Your task to perform on an android device: clear all cookies in the chrome app Image 0: 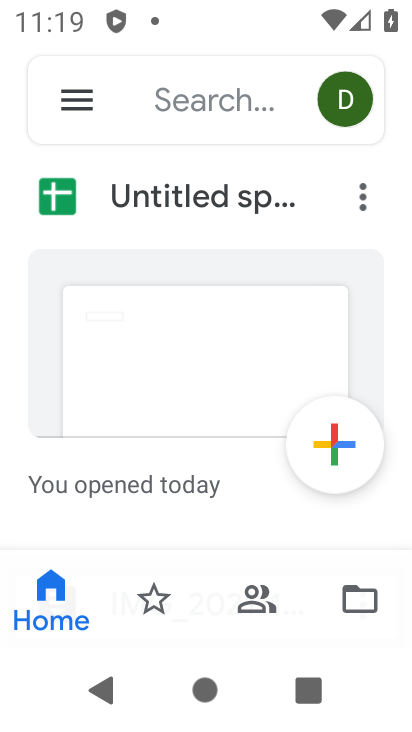
Step 0: press home button
Your task to perform on an android device: clear all cookies in the chrome app Image 1: 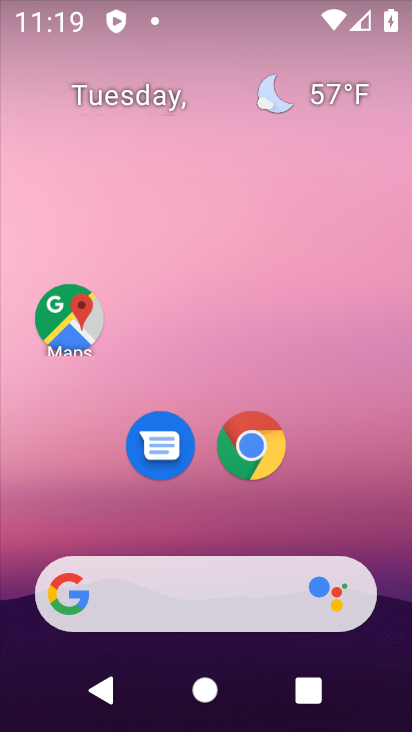
Step 1: drag from (373, 510) to (389, 137)
Your task to perform on an android device: clear all cookies in the chrome app Image 2: 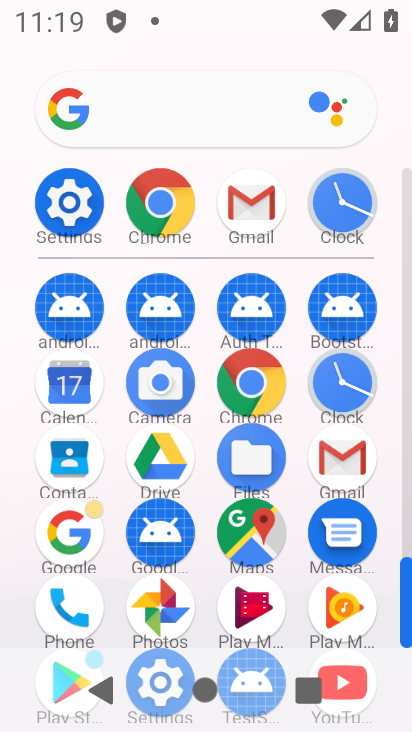
Step 2: click (258, 403)
Your task to perform on an android device: clear all cookies in the chrome app Image 3: 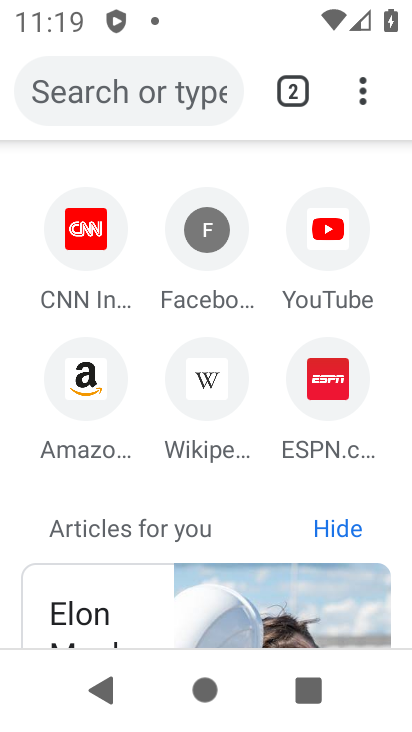
Step 3: click (359, 99)
Your task to perform on an android device: clear all cookies in the chrome app Image 4: 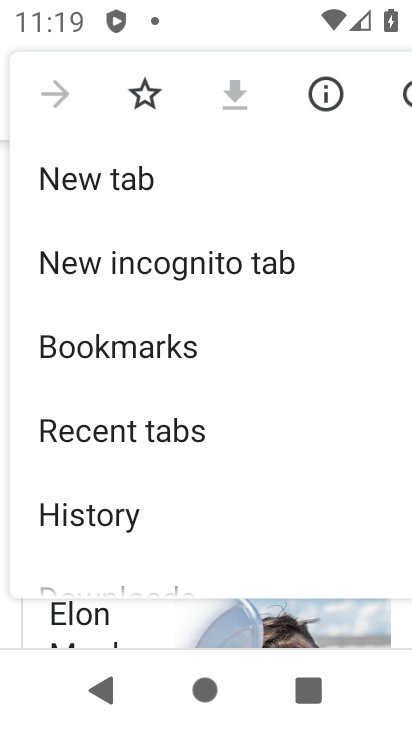
Step 4: drag from (329, 410) to (342, 266)
Your task to perform on an android device: clear all cookies in the chrome app Image 5: 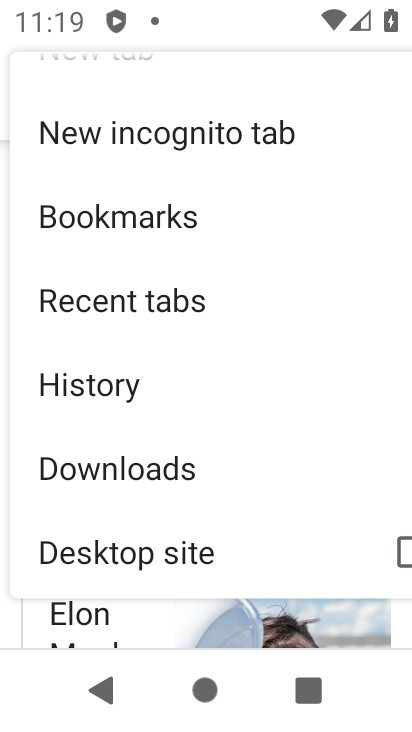
Step 5: drag from (301, 475) to (313, 280)
Your task to perform on an android device: clear all cookies in the chrome app Image 6: 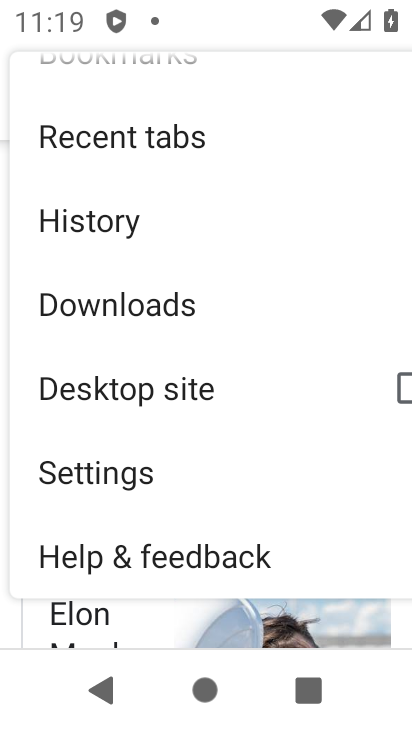
Step 6: drag from (285, 441) to (303, 325)
Your task to perform on an android device: clear all cookies in the chrome app Image 7: 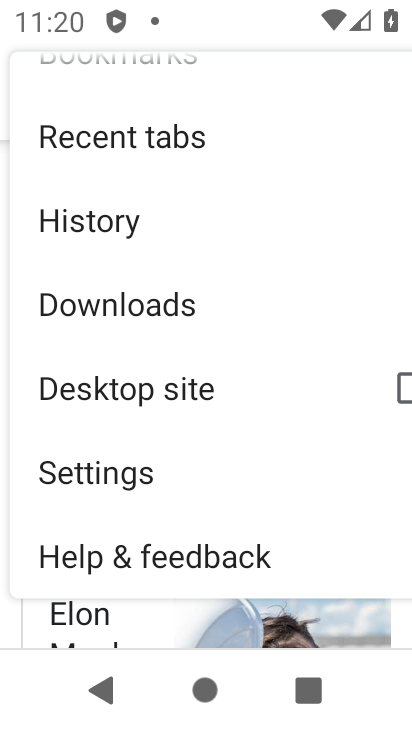
Step 7: click (199, 495)
Your task to perform on an android device: clear all cookies in the chrome app Image 8: 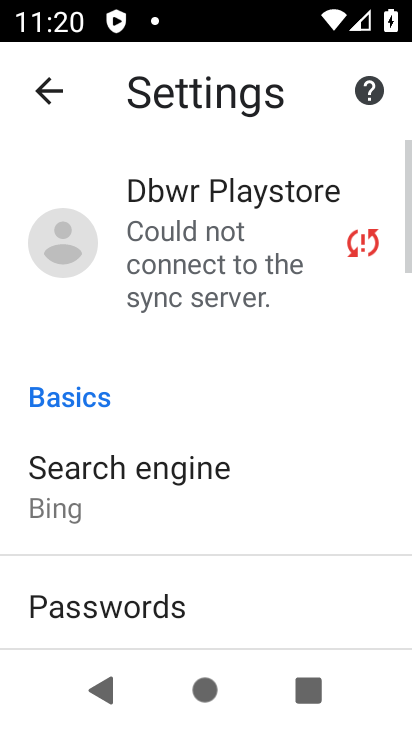
Step 8: drag from (271, 536) to (273, 418)
Your task to perform on an android device: clear all cookies in the chrome app Image 9: 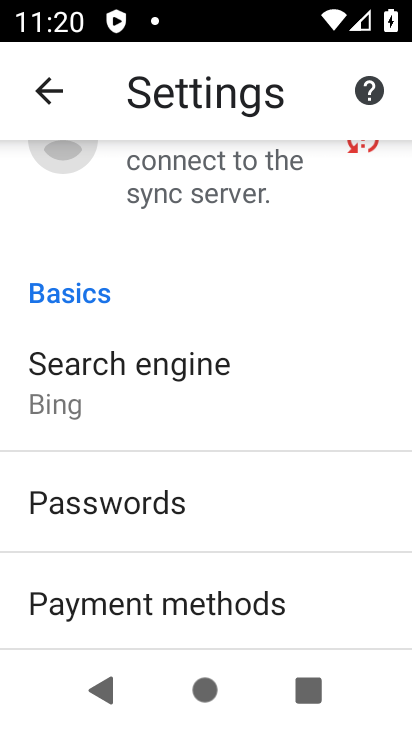
Step 9: drag from (260, 538) to (284, 429)
Your task to perform on an android device: clear all cookies in the chrome app Image 10: 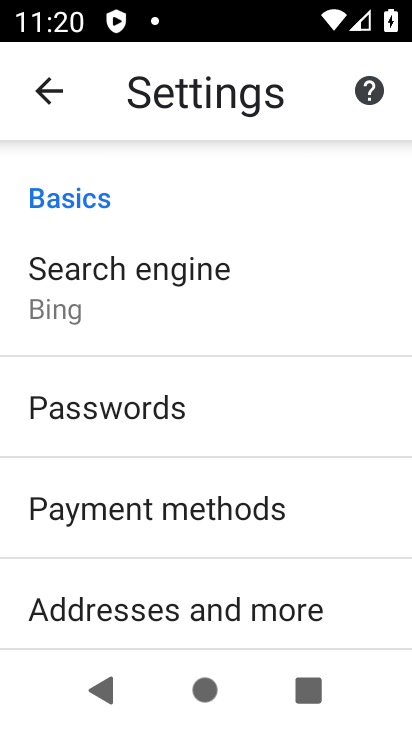
Step 10: drag from (280, 554) to (290, 437)
Your task to perform on an android device: clear all cookies in the chrome app Image 11: 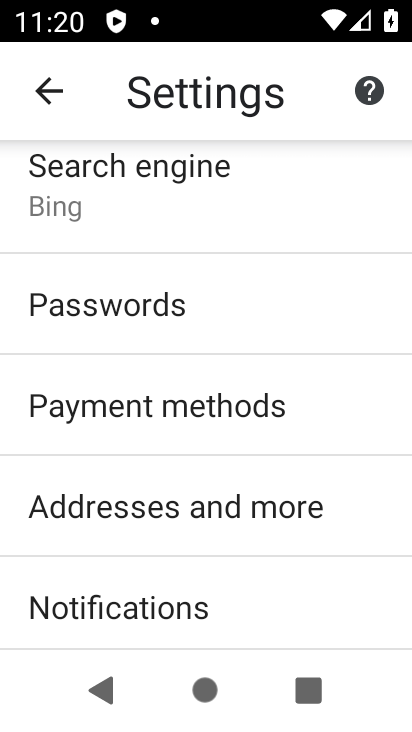
Step 11: drag from (278, 598) to (293, 455)
Your task to perform on an android device: clear all cookies in the chrome app Image 12: 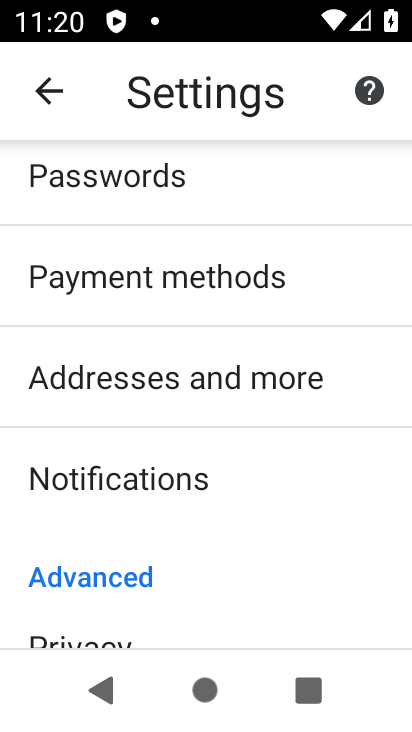
Step 12: drag from (298, 560) to (303, 425)
Your task to perform on an android device: clear all cookies in the chrome app Image 13: 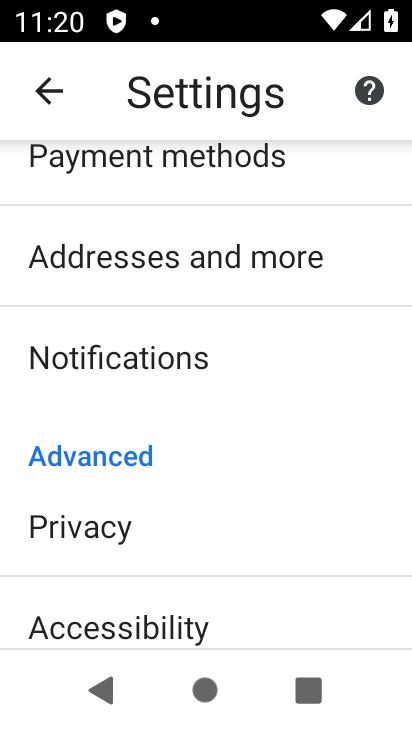
Step 13: drag from (266, 583) to (278, 466)
Your task to perform on an android device: clear all cookies in the chrome app Image 14: 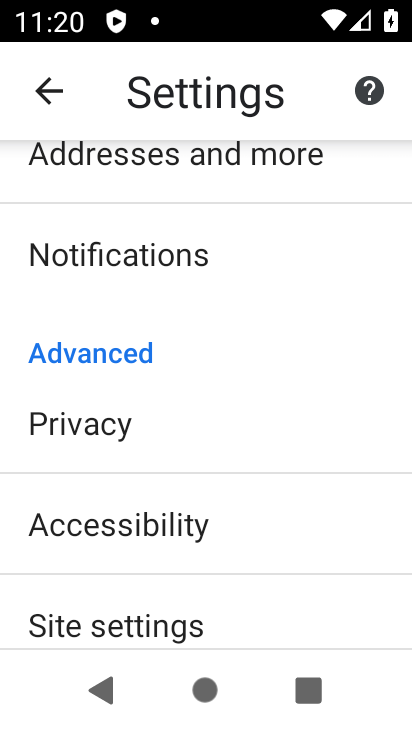
Step 14: drag from (277, 553) to (301, 416)
Your task to perform on an android device: clear all cookies in the chrome app Image 15: 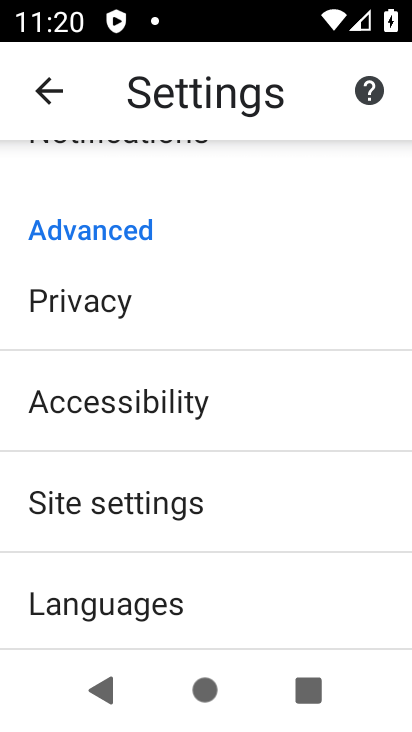
Step 15: click (144, 302)
Your task to perform on an android device: clear all cookies in the chrome app Image 16: 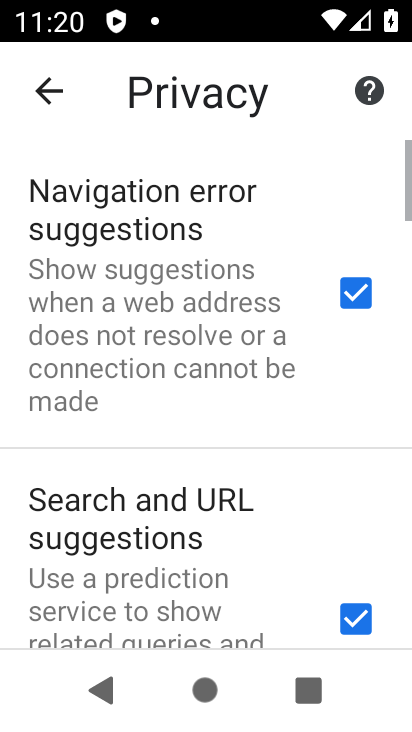
Step 16: drag from (247, 553) to (264, 381)
Your task to perform on an android device: clear all cookies in the chrome app Image 17: 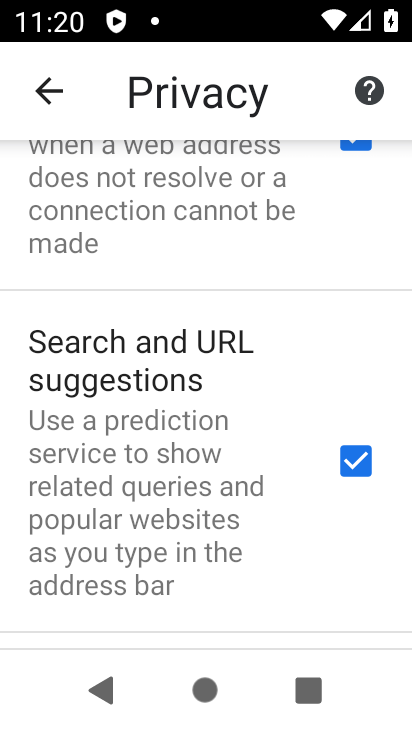
Step 17: drag from (252, 572) to (264, 335)
Your task to perform on an android device: clear all cookies in the chrome app Image 18: 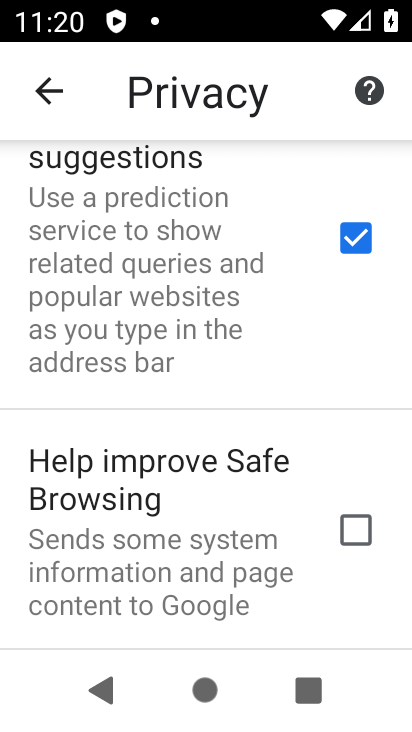
Step 18: drag from (271, 565) to (270, 403)
Your task to perform on an android device: clear all cookies in the chrome app Image 19: 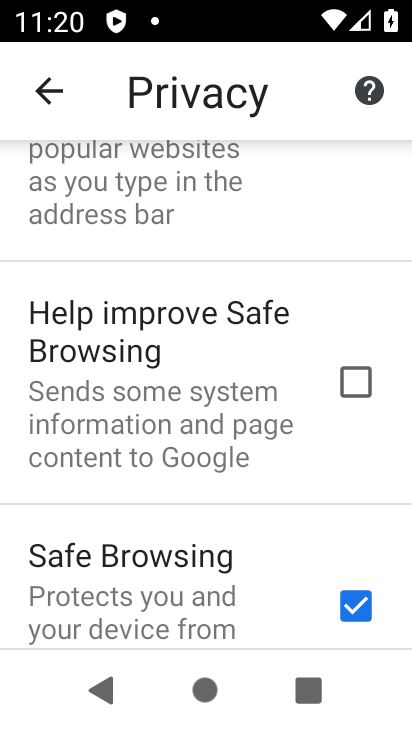
Step 19: drag from (259, 578) to (247, 411)
Your task to perform on an android device: clear all cookies in the chrome app Image 20: 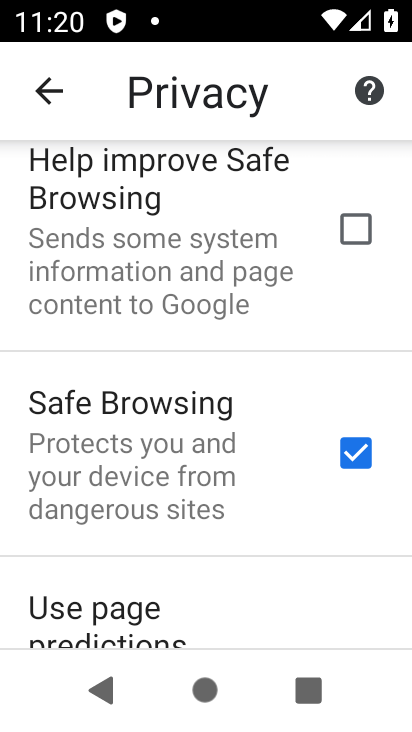
Step 20: drag from (230, 585) to (245, 399)
Your task to perform on an android device: clear all cookies in the chrome app Image 21: 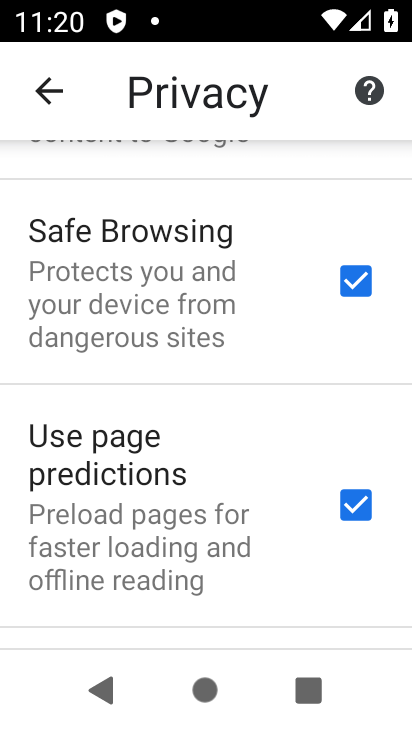
Step 21: drag from (268, 611) to (280, 372)
Your task to perform on an android device: clear all cookies in the chrome app Image 22: 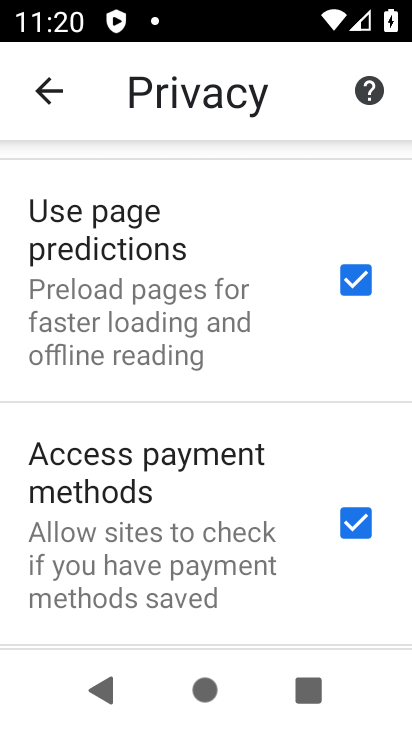
Step 22: drag from (281, 583) to (283, 419)
Your task to perform on an android device: clear all cookies in the chrome app Image 23: 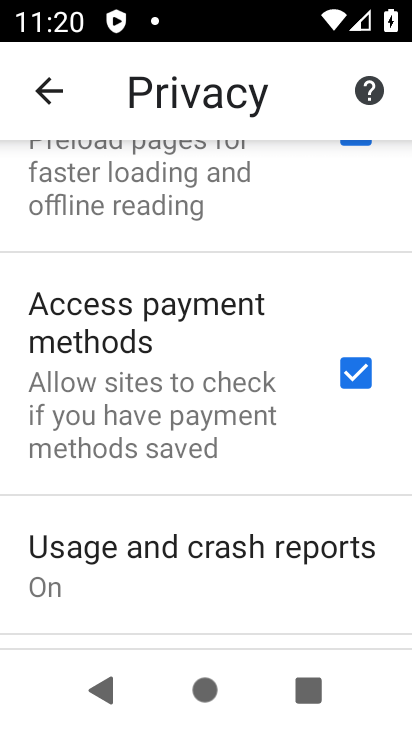
Step 23: drag from (254, 584) to (280, 383)
Your task to perform on an android device: clear all cookies in the chrome app Image 24: 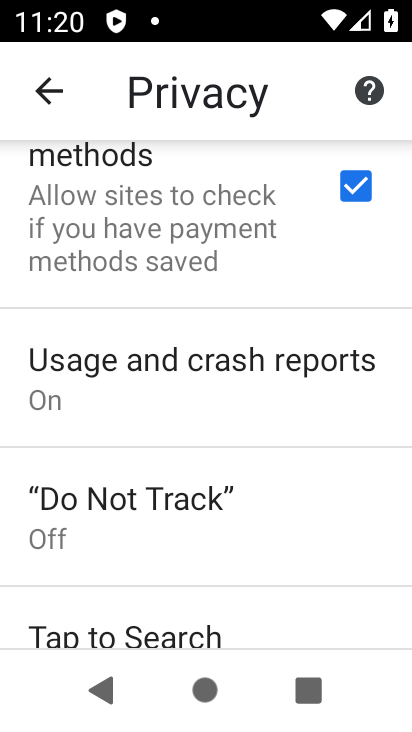
Step 24: drag from (263, 590) to (279, 456)
Your task to perform on an android device: clear all cookies in the chrome app Image 25: 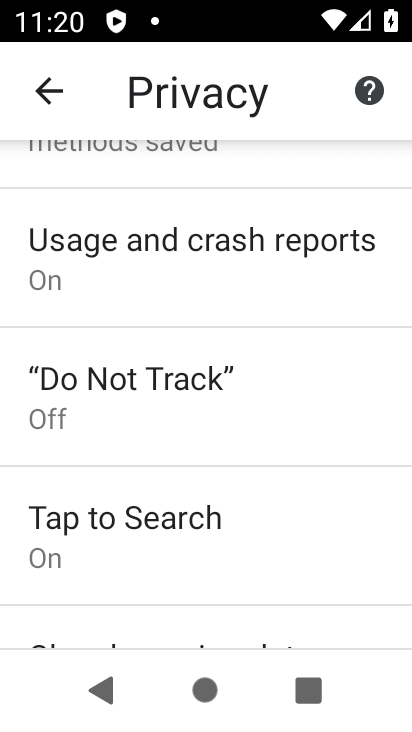
Step 25: drag from (253, 610) to (256, 398)
Your task to perform on an android device: clear all cookies in the chrome app Image 26: 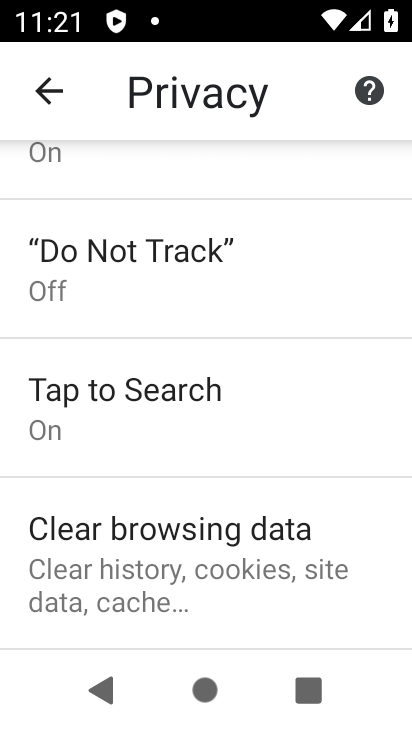
Step 26: click (224, 549)
Your task to perform on an android device: clear all cookies in the chrome app Image 27: 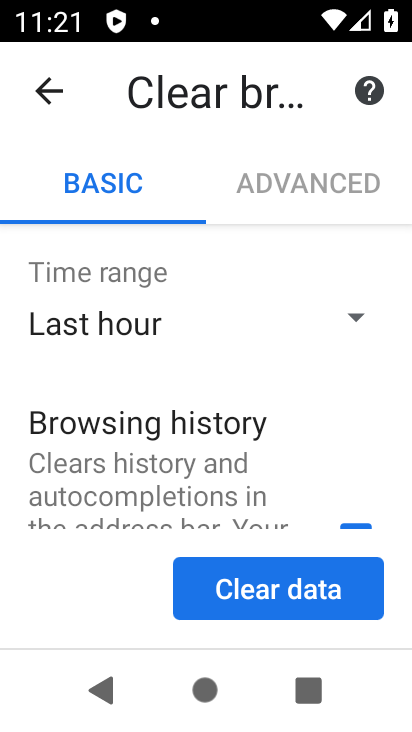
Step 27: click (266, 591)
Your task to perform on an android device: clear all cookies in the chrome app Image 28: 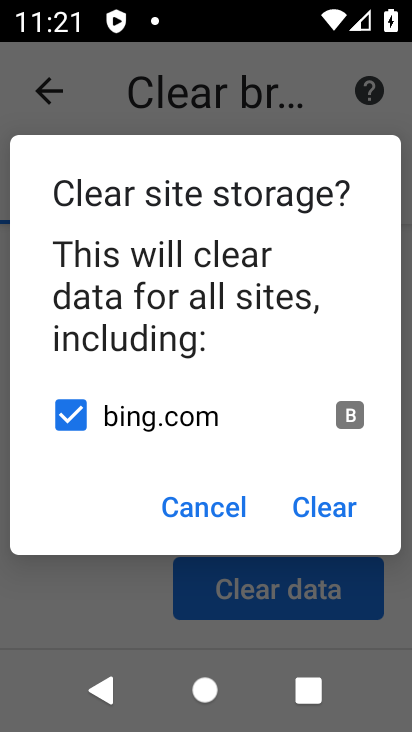
Step 28: click (307, 522)
Your task to perform on an android device: clear all cookies in the chrome app Image 29: 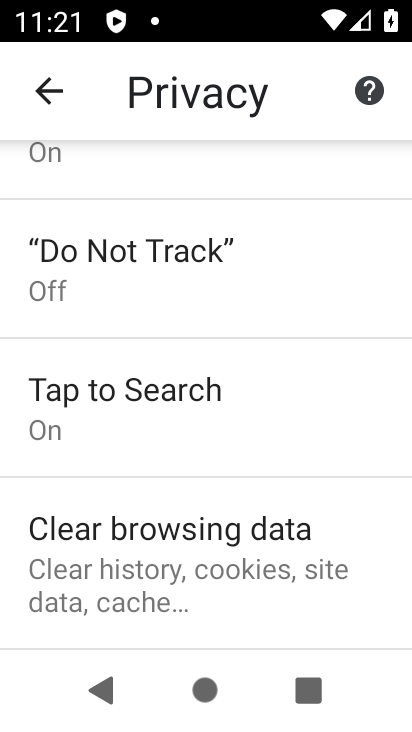
Step 29: task complete